Your task to perform on an android device: show emergency info Image 0: 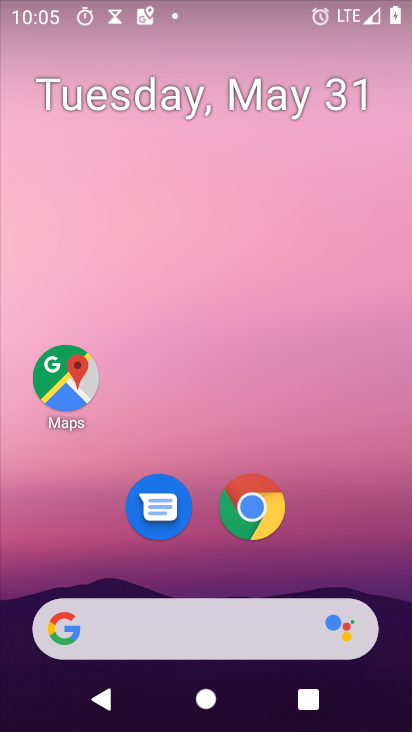
Step 0: drag from (1, 600) to (225, 158)
Your task to perform on an android device: show emergency info Image 1: 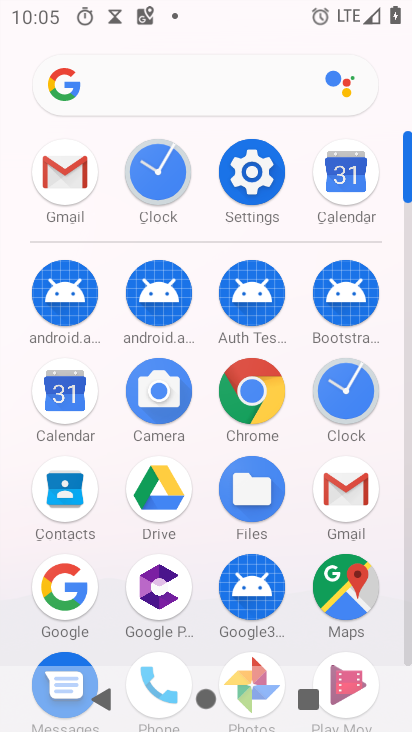
Step 1: click (265, 167)
Your task to perform on an android device: show emergency info Image 2: 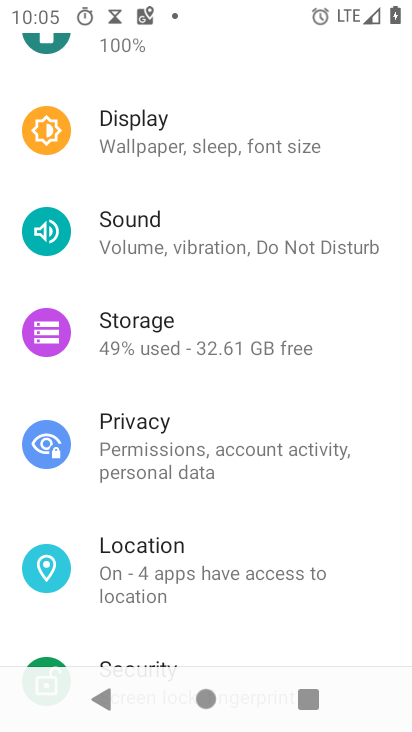
Step 2: drag from (16, 503) to (228, 121)
Your task to perform on an android device: show emergency info Image 3: 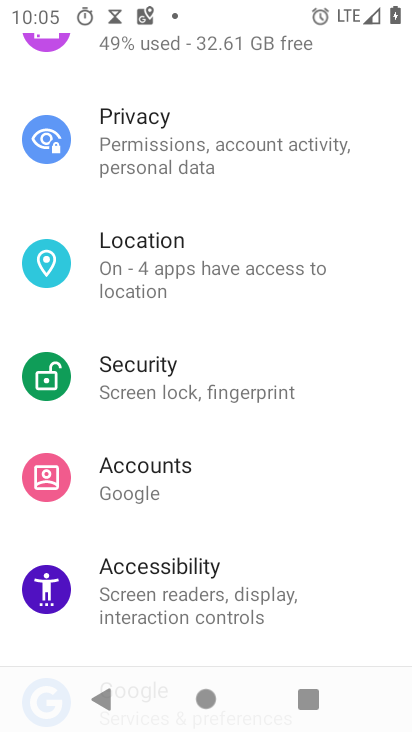
Step 3: drag from (14, 582) to (245, 165)
Your task to perform on an android device: show emergency info Image 4: 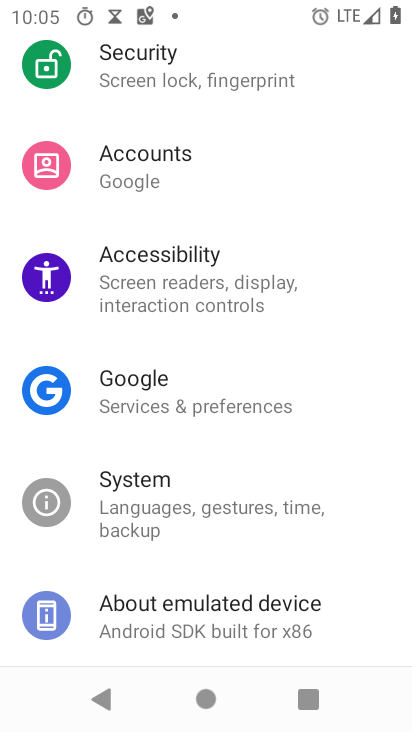
Step 4: click (98, 607)
Your task to perform on an android device: show emergency info Image 5: 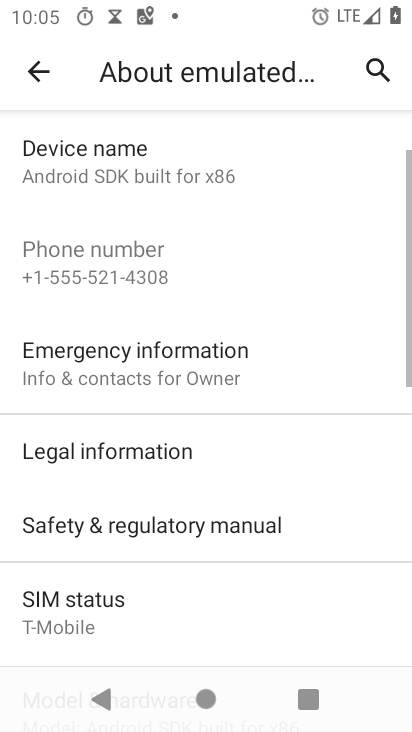
Step 5: click (144, 361)
Your task to perform on an android device: show emergency info Image 6: 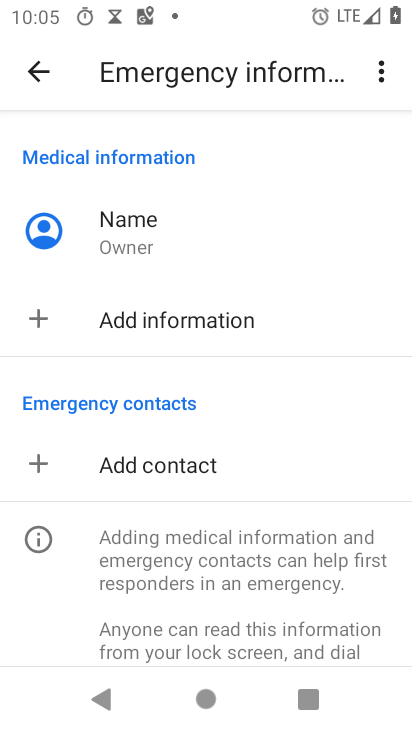
Step 6: task complete